Your task to perform on an android device: turn on airplane mode Image 0: 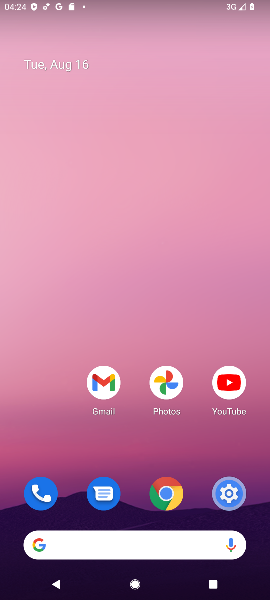
Step 0: press home button
Your task to perform on an android device: turn on airplane mode Image 1: 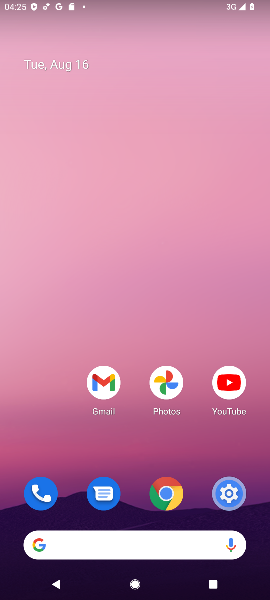
Step 1: drag from (73, 511) to (102, 88)
Your task to perform on an android device: turn on airplane mode Image 2: 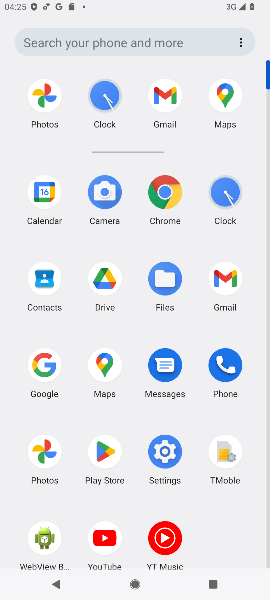
Step 2: click (165, 456)
Your task to perform on an android device: turn on airplane mode Image 3: 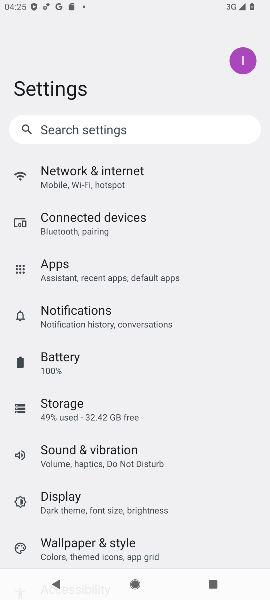
Step 3: drag from (206, 477) to (226, 317)
Your task to perform on an android device: turn on airplane mode Image 4: 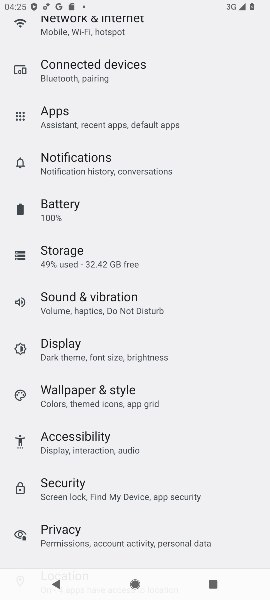
Step 4: drag from (209, 433) to (221, 291)
Your task to perform on an android device: turn on airplane mode Image 5: 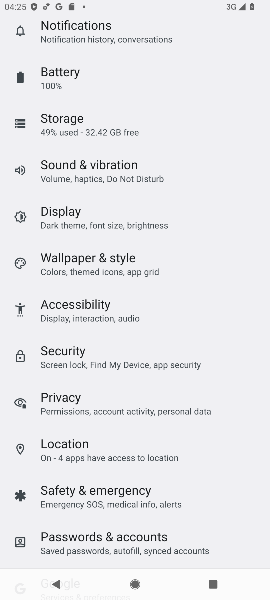
Step 5: drag from (238, 462) to (240, 292)
Your task to perform on an android device: turn on airplane mode Image 6: 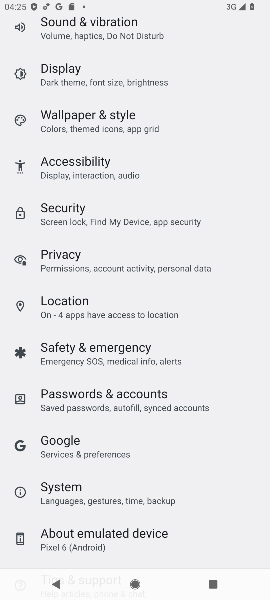
Step 6: drag from (239, 378) to (237, 269)
Your task to perform on an android device: turn on airplane mode Image 7: 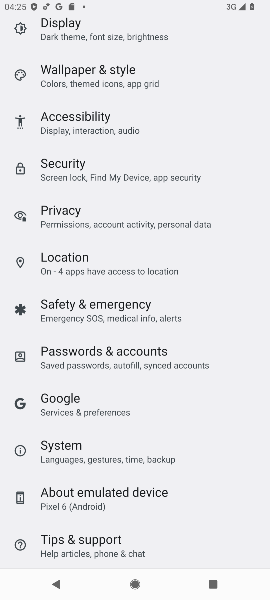
Step 7: drag from (235, 159) to (240, 294)
Your task to perform on an android device: turn on airplane mode Image 8: 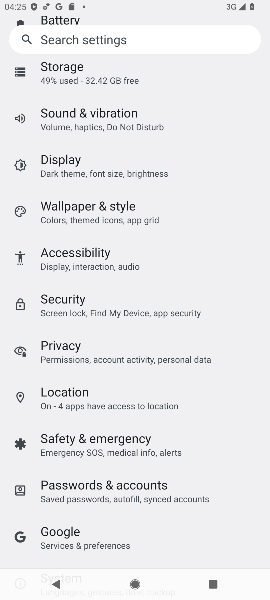
Step 8: drag from (238, 176) to (228, 301)
Your task to perform on an android device: turn on airplane mode Image 9: 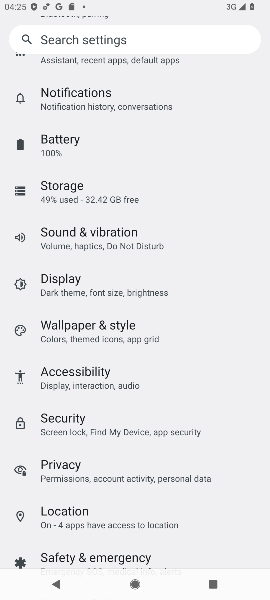
Step 9: drag from (232, 183) to (228, 310)
Your task to perform on an android device: turn on airplane mode Image 10: 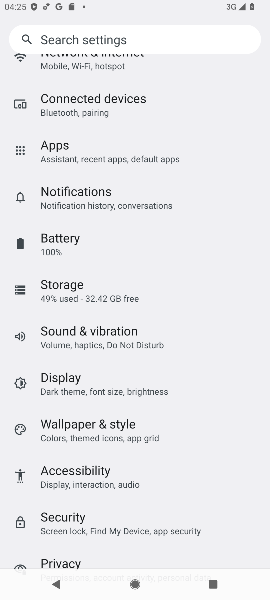
Step 10: drag from (226, 153) to (230, 280)
Your task to perform on an android device: turn on airplane mode Image 11: 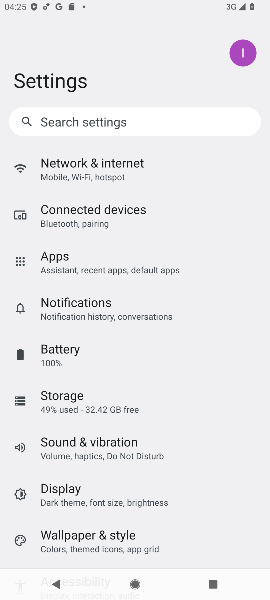
Step 11: click (145, 171)
Your task to perform on an android device: turn on airplane mode Image 12: 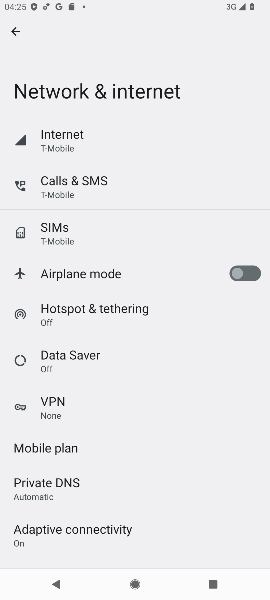
Step 12: click (238, 274)
Your task to perform on an android device: turn on airplane mode Image 13: 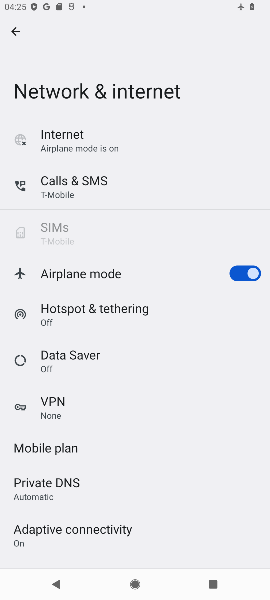
Step 13: task complete